Your task to perform on an android device: Go to Maps Image 0: 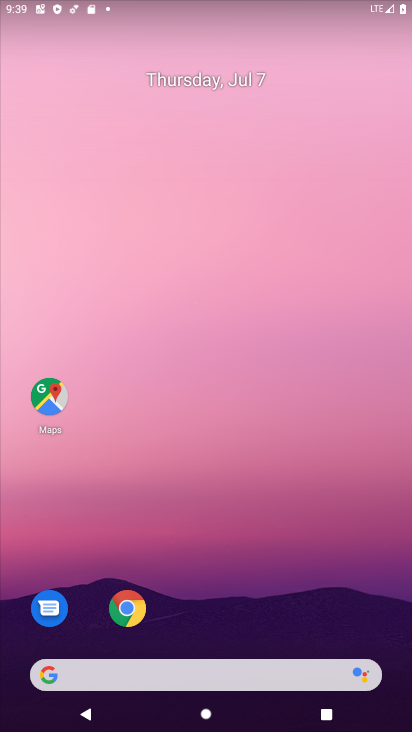
Step 0: drag from (245, 412) to (265, 55)
Your task to perform on an android device: Go to Maps Image 1: 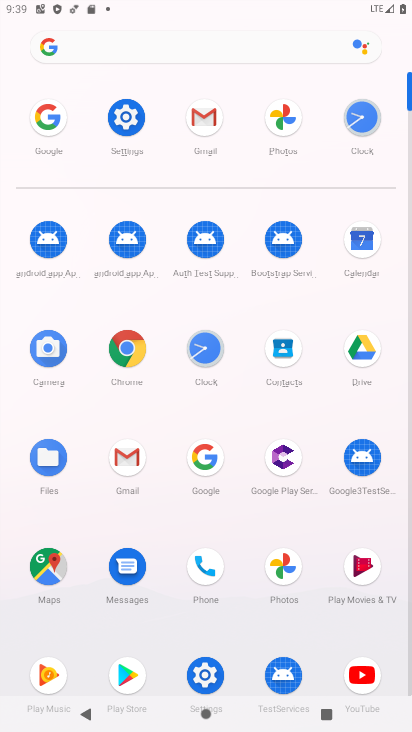
Step 1: click (48, 566)
Your task to perform on an android device: Go to Maps Image 2: 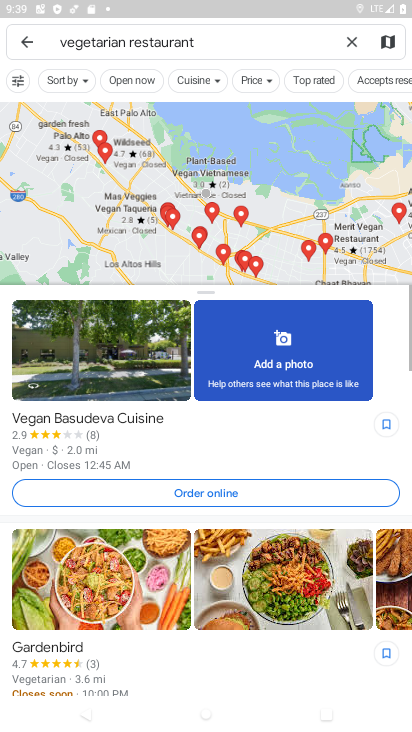
Step 2: task complete